Your task to perform on an android device: toggle priority inbox in the gmail app Image 0: 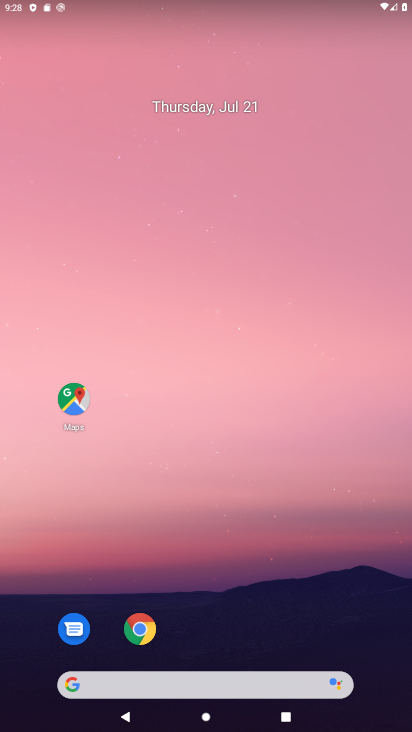
Step 0: drag from (196, 655) to (274, 242)
Your task to perform on an android device: toggle priority inbox in the gmail app Image 1: 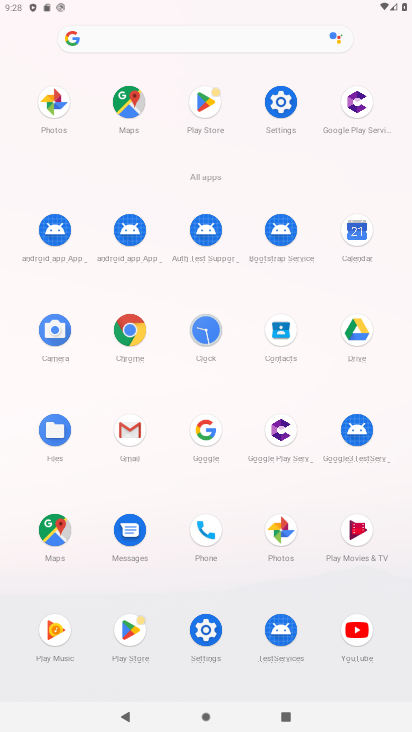
Step 1: click (120, 441)
Your task to perform on an android device: toggle priority inbox in the gmail app Image 2: 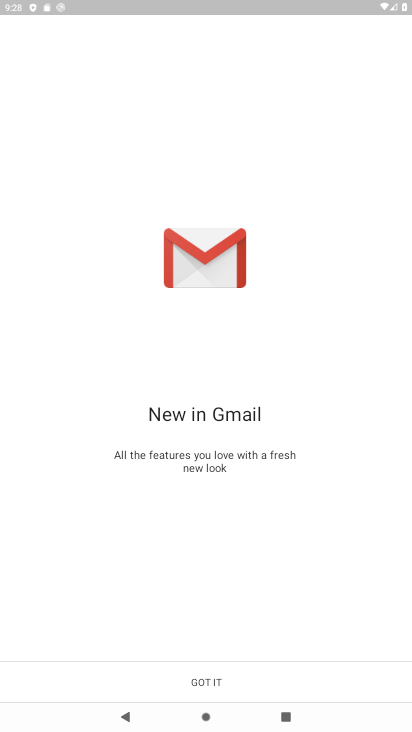
Step 2: click (153, 697)
Your task to perform on an android device: toggle priority inbox in the gmail app Image 3: 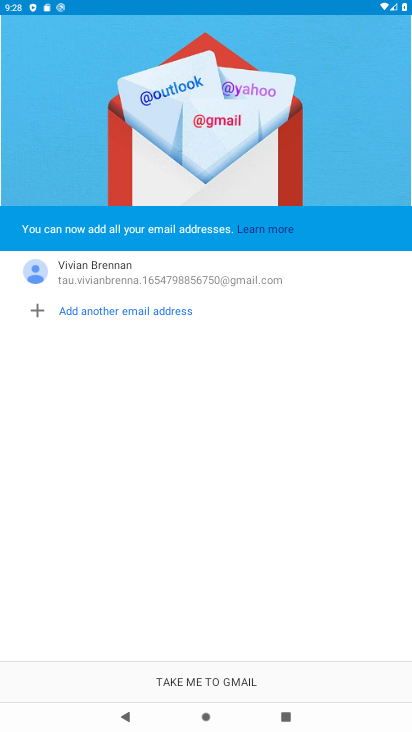
Step 3: click (153, 697)
Your task to perform on an android device: toggle priority inbox in the gmail app Image 4: 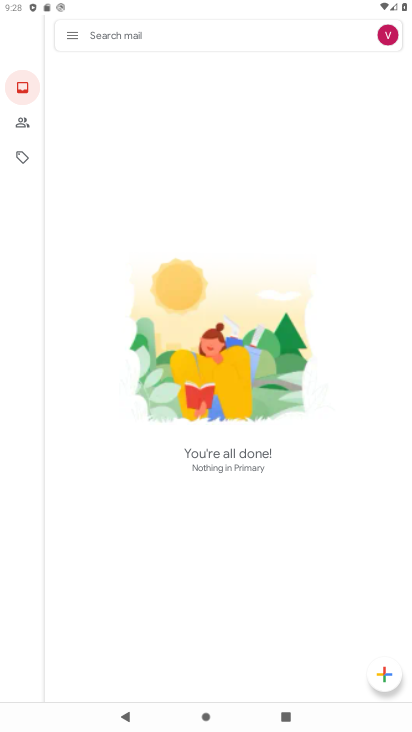
Step 4: click (69, 45)
Your task to perform on an android device: toggle priority inbox in the gmail app Image 5: 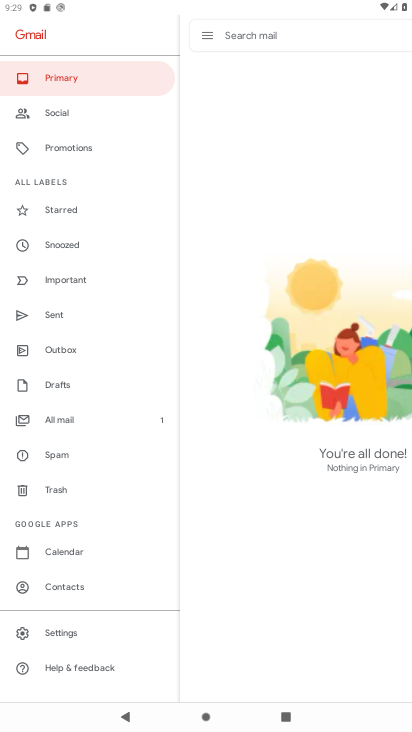
Step 5: click (69, 629)
Your task to perform on an android device: toggle priority inbox in the gmail app Image 6: 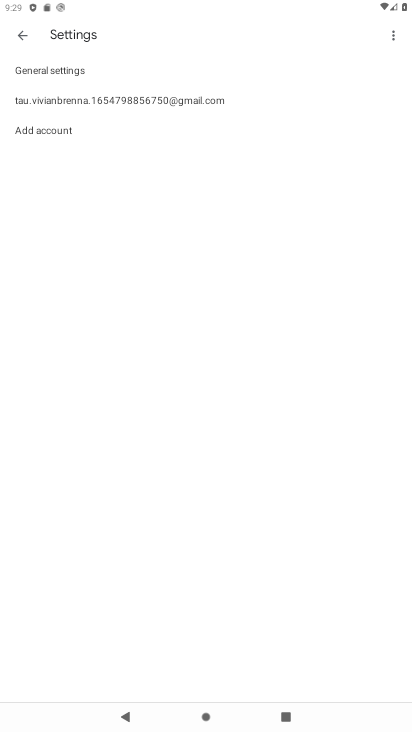
Step 6: click (203, 108)
Your task to perform on an android device: toggle priority inbox in the gmail app Image 7: 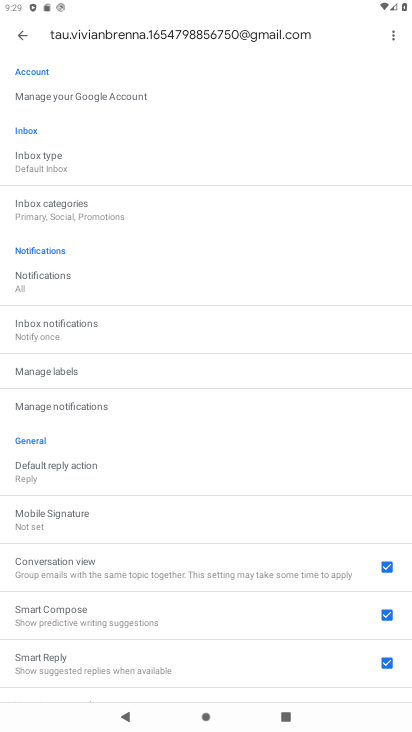
Step 7: click (13, 158)
Your task to perform on an android device: toggle priority inbox in the gmail app Image 8: 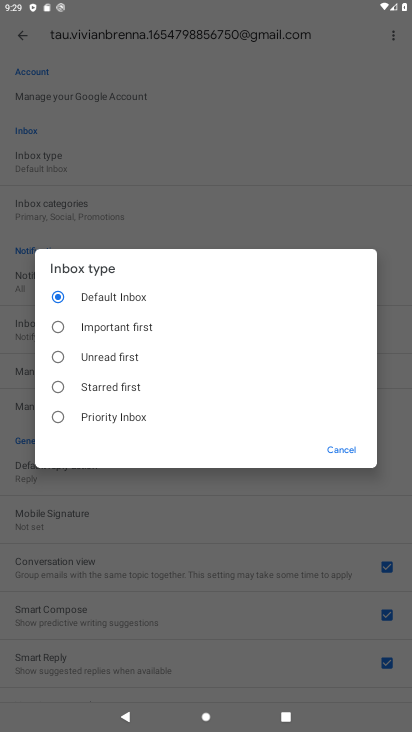
Step 8: click (76, 364)
Your task to perform on an android device: toggle priority inbox in the gmail app Image 9: 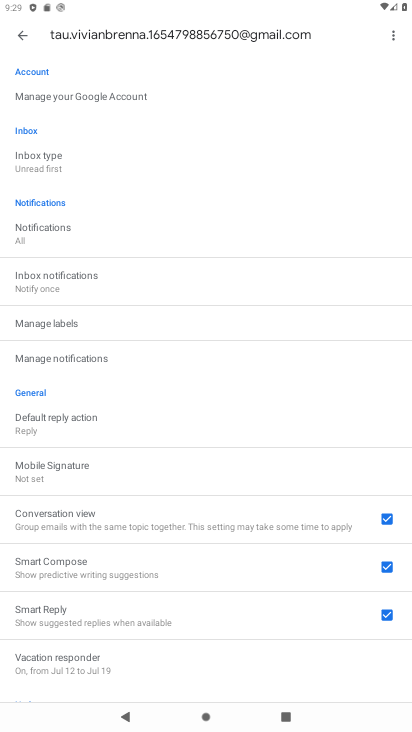
Step 9: task complete